Your task to perform on an android device: Open calendar and show me the third week of next month Image 0: 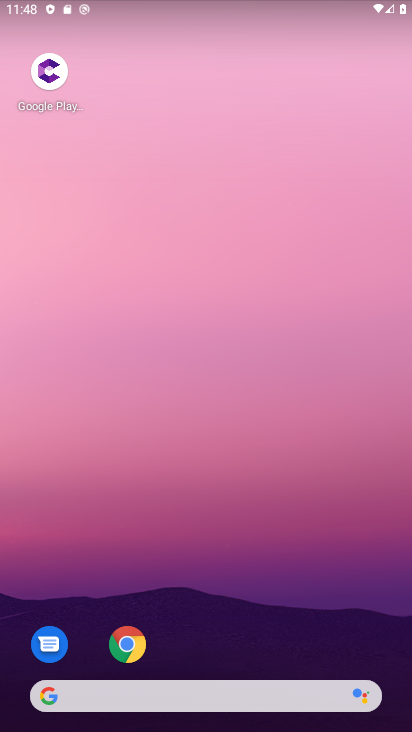
Step 0: drag from (224, 645) to (235, 131)
Your task to perform on an android device: Open calendar and show me the third week of next month Image 1: 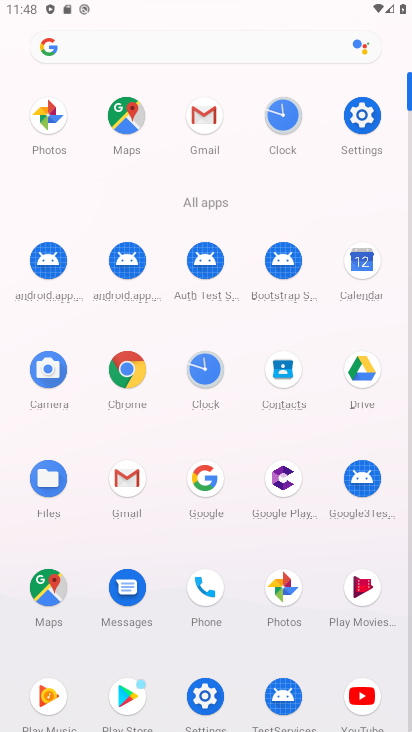
Step 1: click (359, 257)
Your task to perform on an android device: Open calendar and show me the third week of next month Image 2: 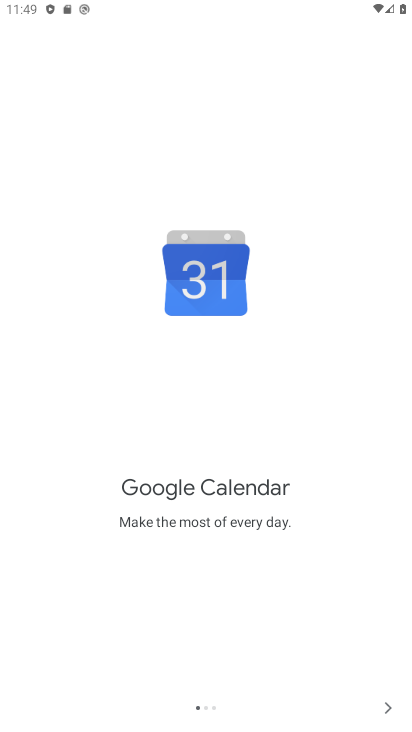
Step 2: click (389, 707)
Your task to perform on an android device: Open calendar and show me the third week of next month Image 3: 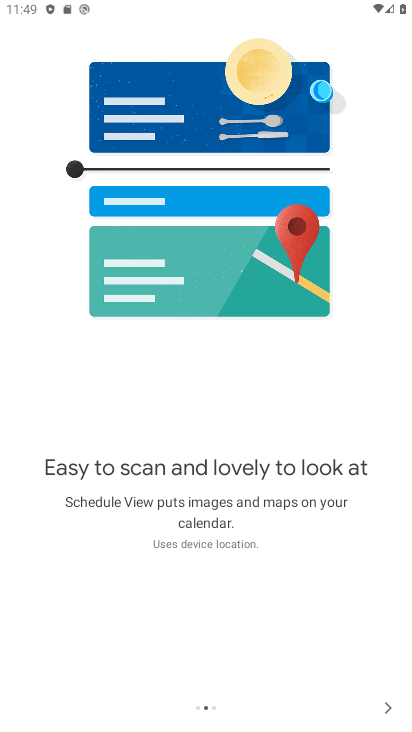
Step 3: click (389, 707)
Your task to perform on an android device: Open calendar and show me the third week of next month Image 4: 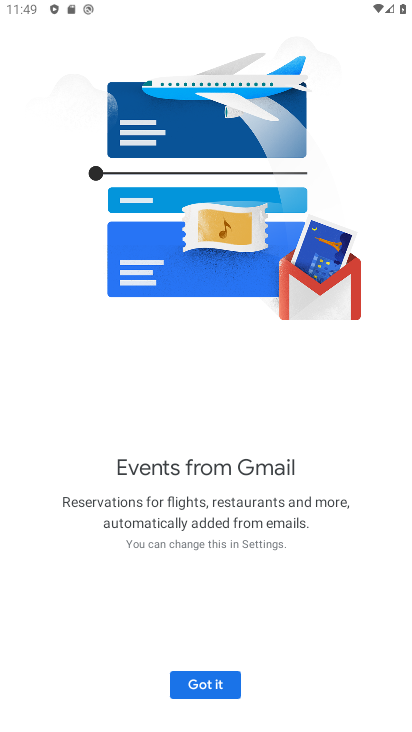
Step 4: click (223, 687)
Your task to perform on an android device: Open calendar and show me the third week of next month Image 5: 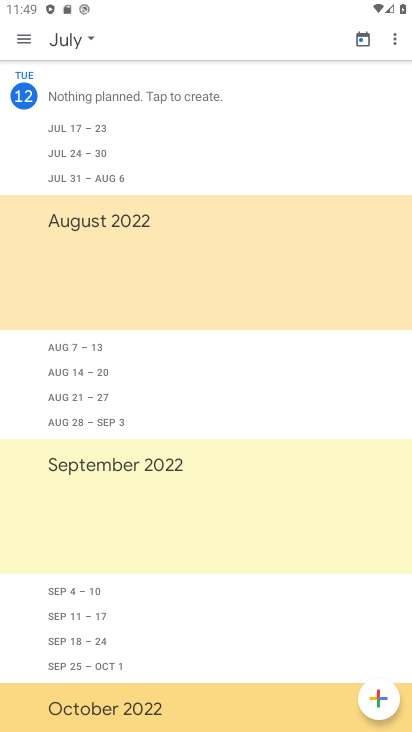
Step 5: click (79, 40)
Your task to perform on an android device: Open calendar and show me the third week of next month Image 6: 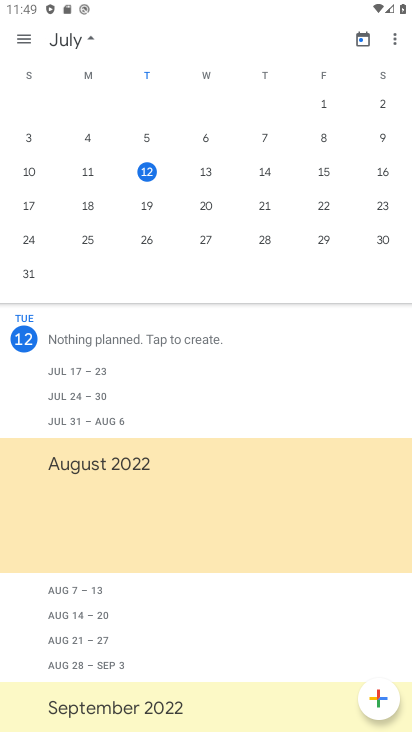
Step 6: drag from (366, 281) to (2, 251)
Your task to perform on an android device: Open calendar and show me the third week of next month Image 7: 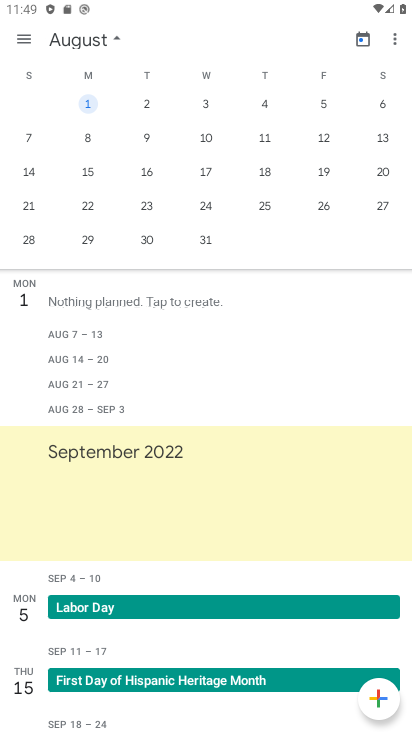
Step 7: click (204, 164)
Your task to perform on an android device: Open calendar and show me the third week of next month Image 8: 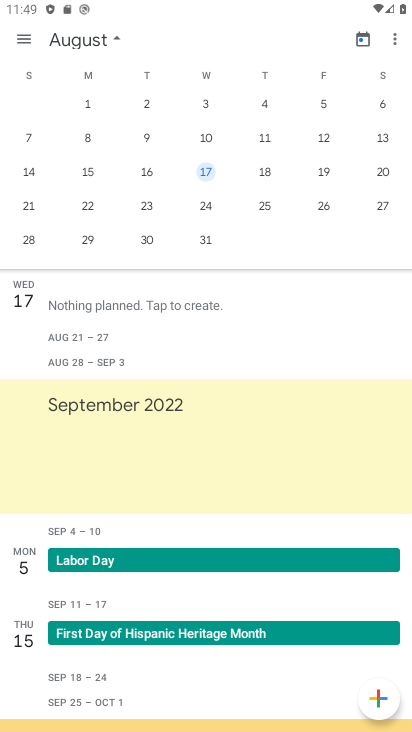
Step 8: task complete